Your task to perform on an android device: What is the recent news? Image 0: 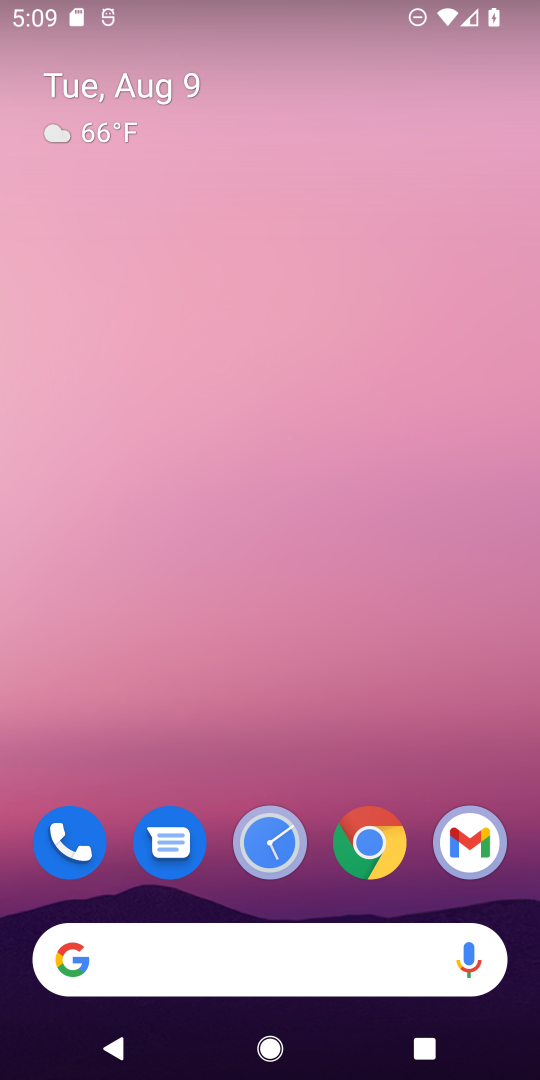
Step 0: drag from (347, 962) to (396, 747)
Your task to perform on an android device: What is the recent news? Image 1: 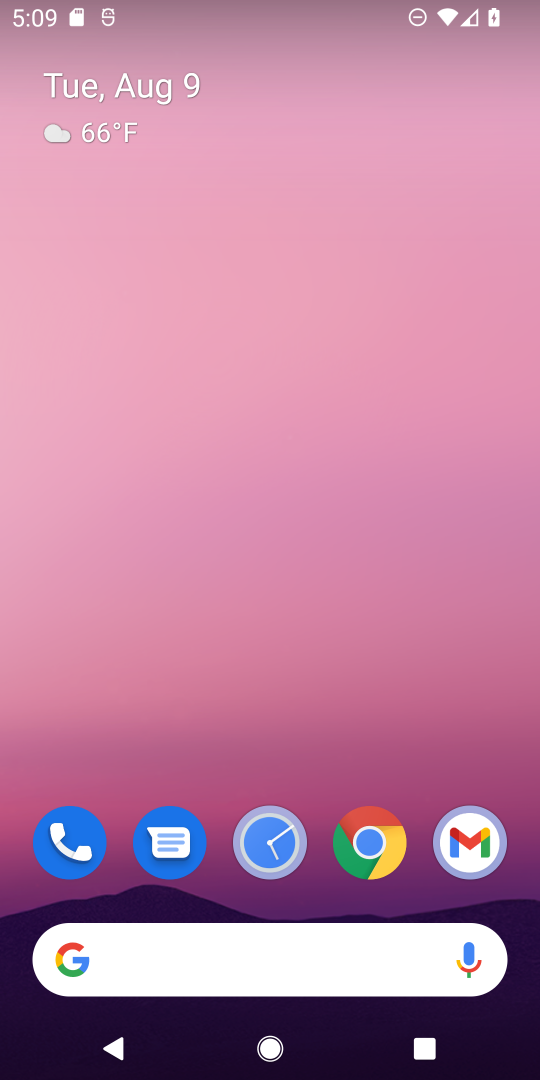
Step 1: drag from (309, 902) to (338, 378)
Your task to perform on an android device: What is the recent news? Image 2: 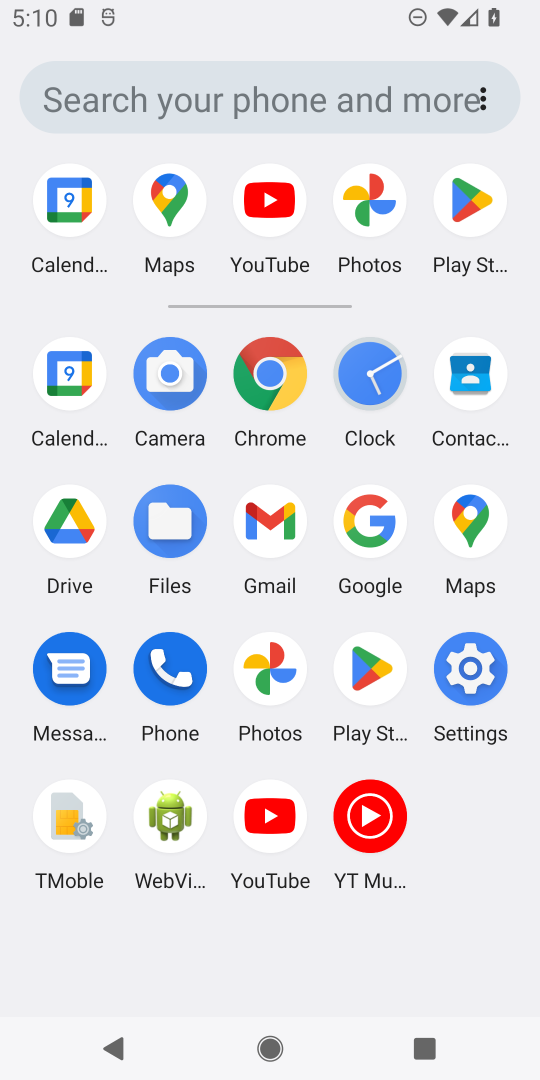
Step 2: click (362, 531)
Your task to perform on an android device: What is the recent news? Image 3: 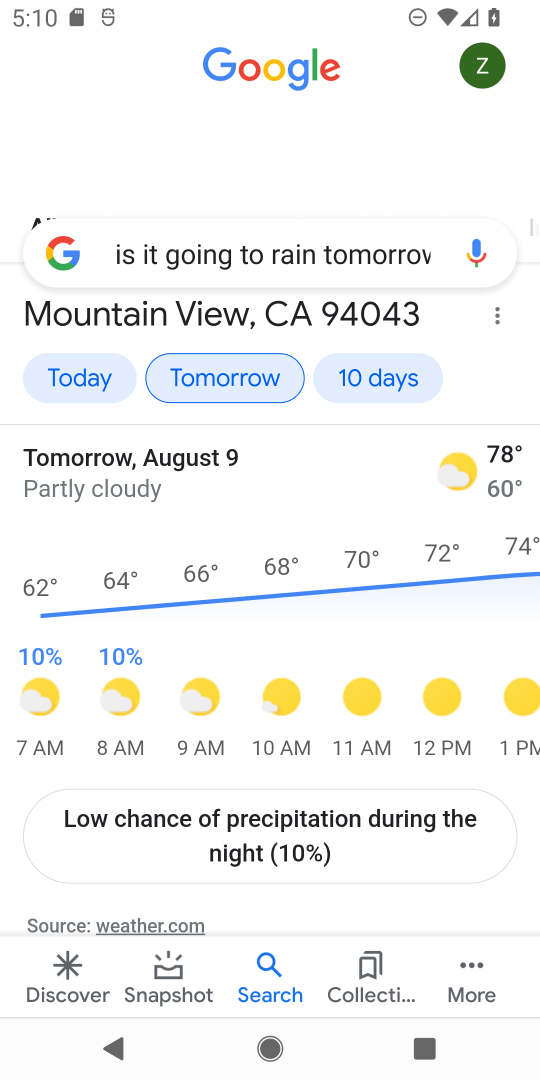
Step 3: click (329, 262)
Your task to perform on an android device: What is the recent news? Image 4: 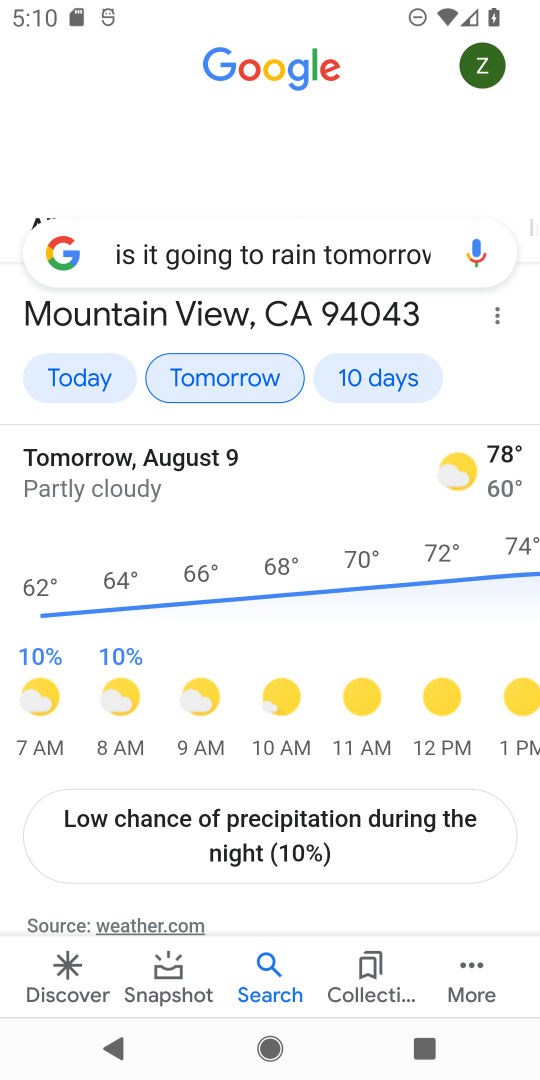
Step 4: click (329, 262)
Your task to perform on an android device: What is the recent news? Image 5: 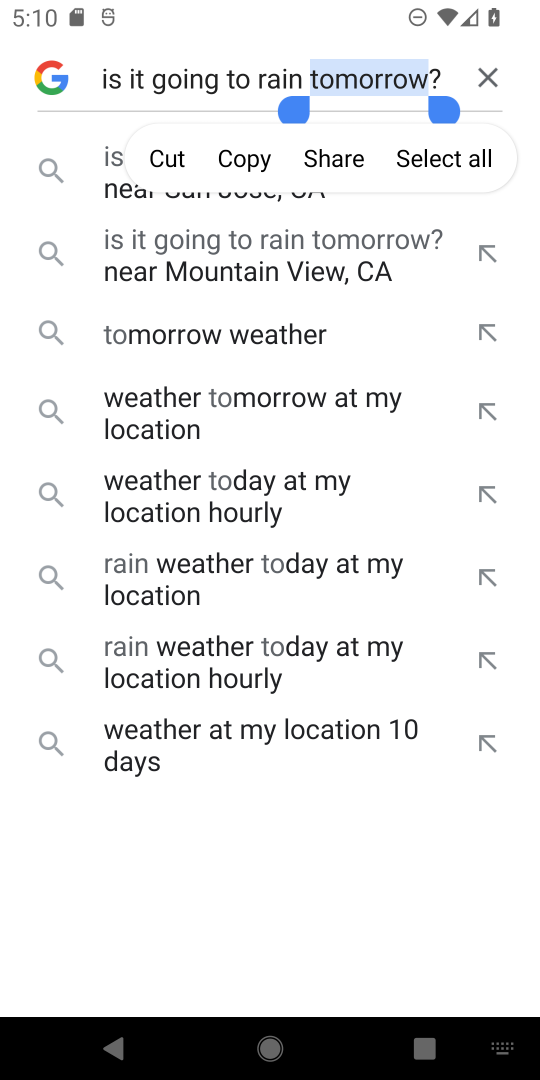
Step 5: click (489, 72)
Your task to perform on an android device: What is the recent news? Image 6: 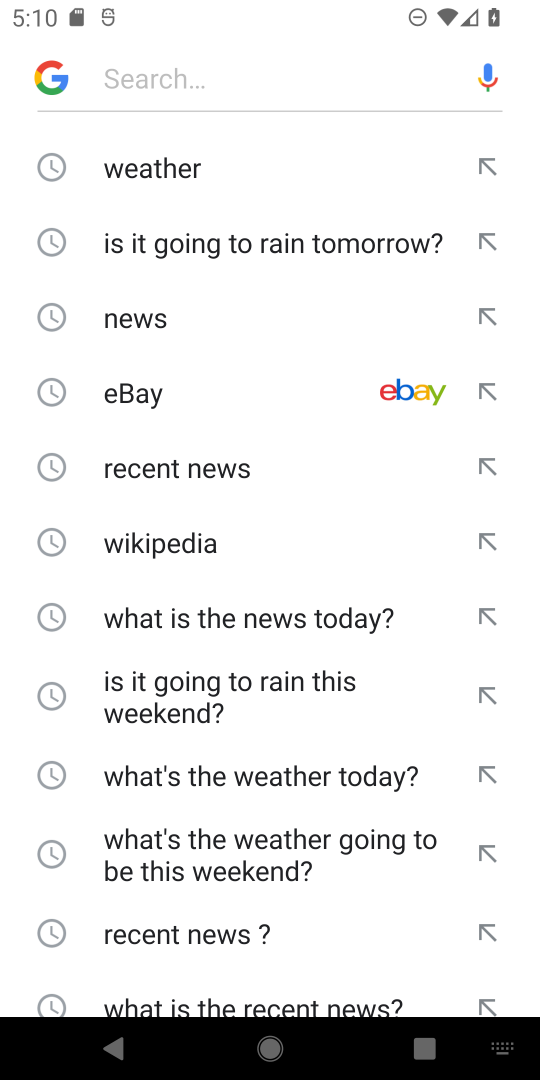
Step 6: click (336, 1001)
Your task to perform on an android device: What is the recent news? Image 7: 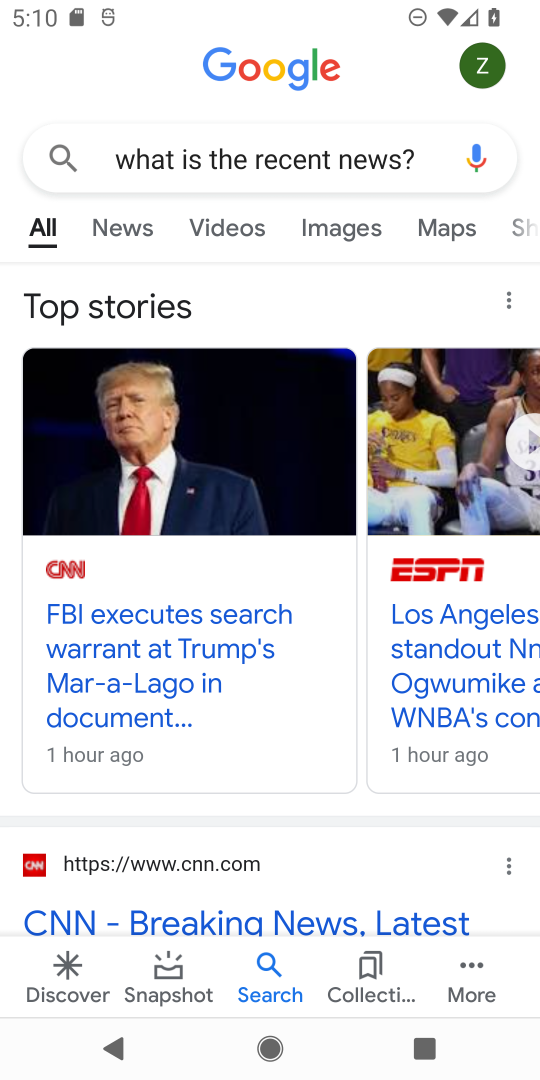
Step 7: task complete